Your task to perform on an android device: turn off priority inbox in the gmail app Image 0: 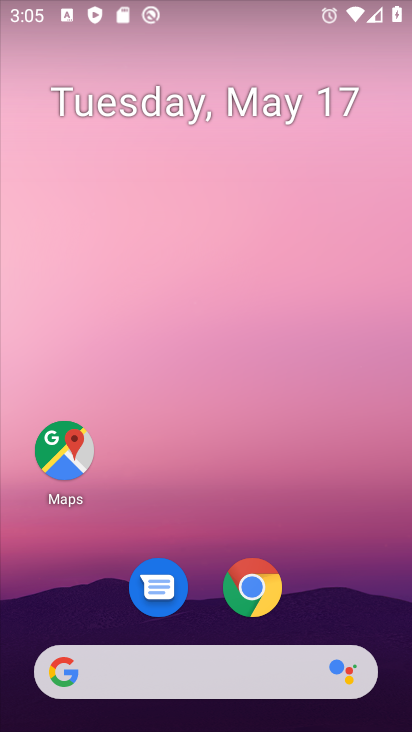
Step 0: drag from (209, 615) to (211, 165)
Your task to perform on an android device: turn off priority inbox in the gmail app Image 1: 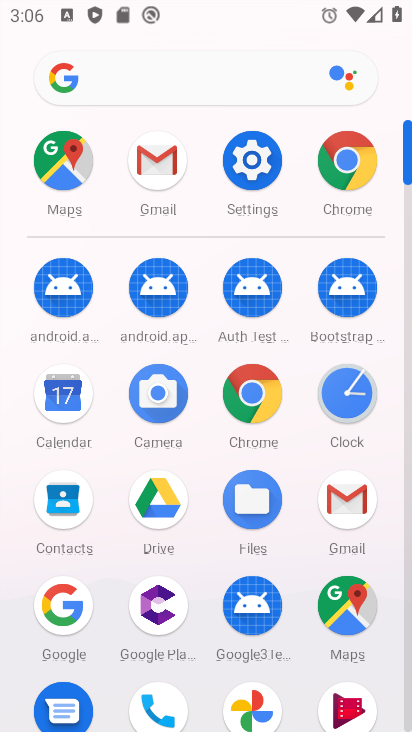
Step 1: click (342, 499)
Your task to perform on an android device: turn off priority inbox in the gmail app Image 2: 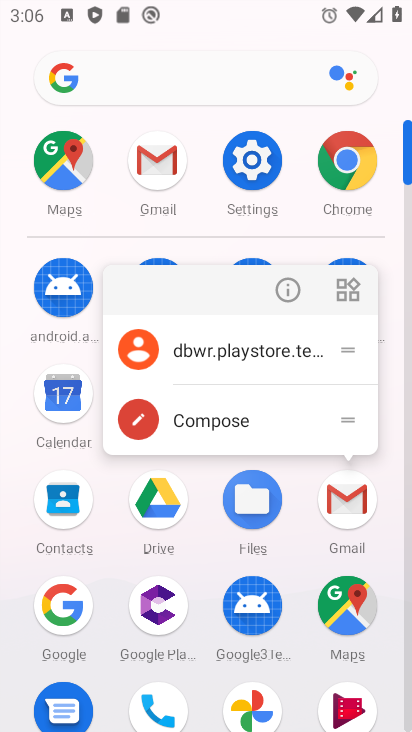
Step 2: click (233, 345)
Your task to perform on an android device: turn off priority inbox in the gmail app Image 3: 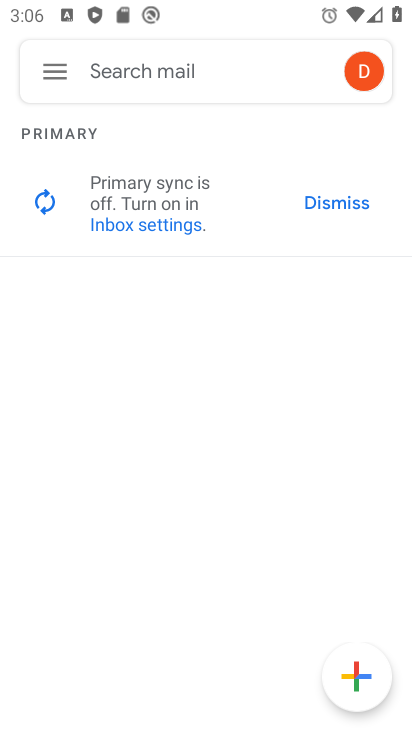
Step 3: click (35, 74)
Your task to perform on an android device: turn off priority inbox in the gmail app Image 4: 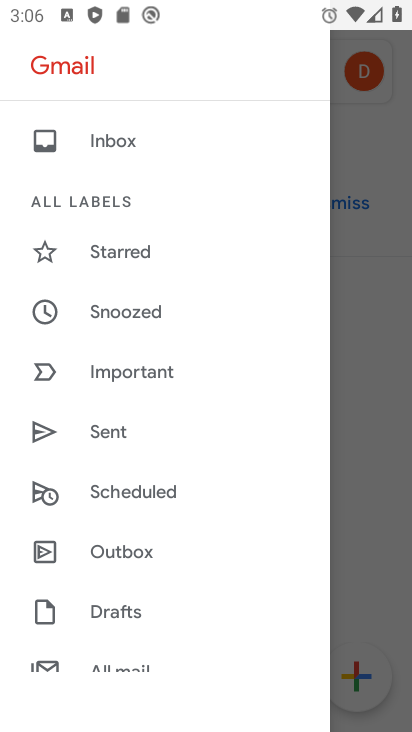
Step 4: drag from (199, 634) to (212, 458)
Your task to perform on an android device: turn off priority inbox in the gmail app Image 5: 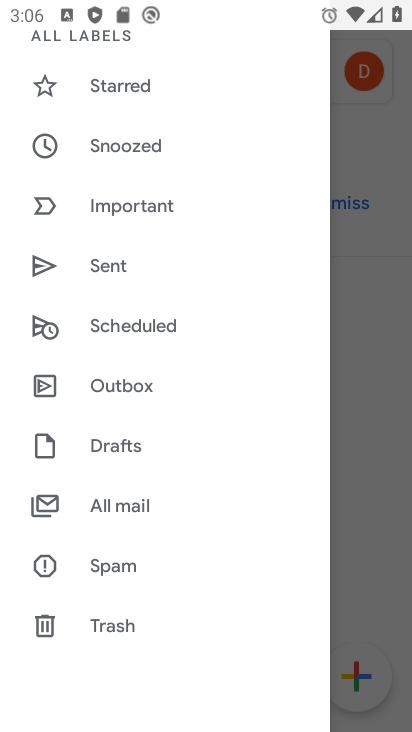
Step 5: drag from (150, 634) to (296, 25)
Your task to perform on an android device: turn off priority inbox in the gmail app Image 6: 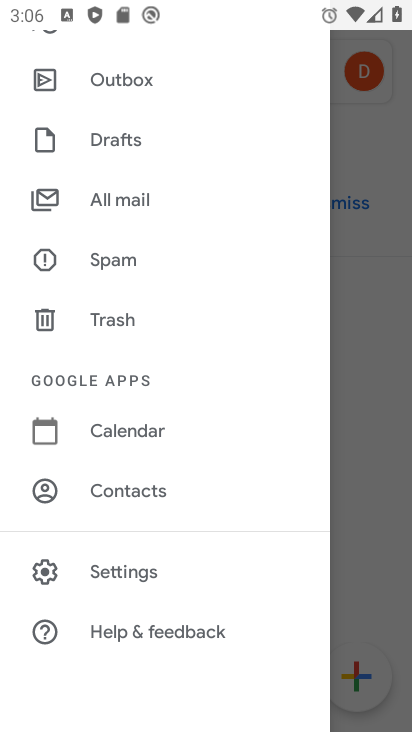
Step 6: click (144, 581)
Your task to perform on an android device: turn off priority inbox in the gmail app Image 7: 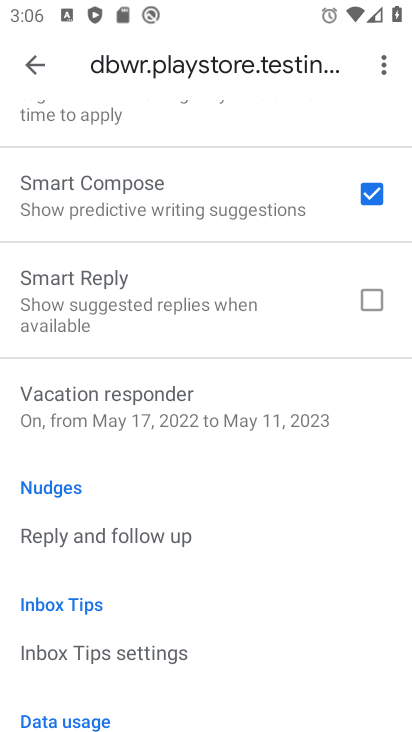
Step 7: drag from (220, 171) to (249, 708)
Your task to perform on an android device: turn off priority inbox in the gmail app Image 8: 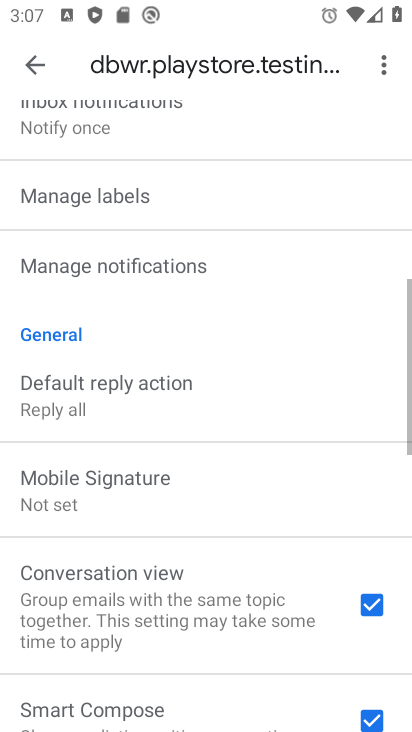
Step 8: drag from (228, 256) to (199, 720)
Your task to perform on an android device: turn off priority inbox in the gmail app Image 9: 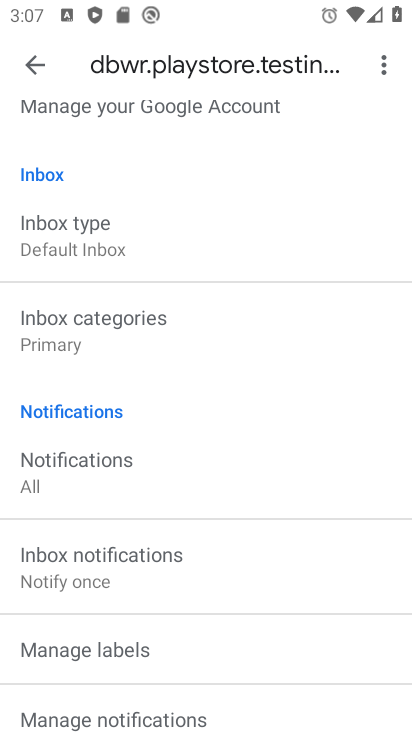
Step 9: click (129, 237)
Your task to perform on an android device: turn off priority inbox in the gmail app Image 10: 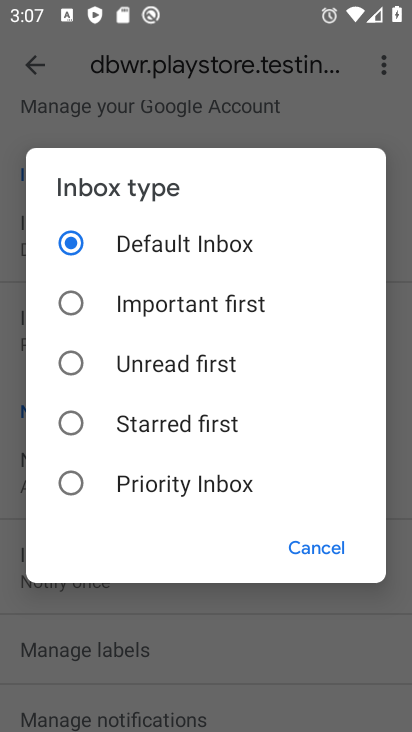
Step 10: click (116, 367)
Your task to perform on an android device: turn off priority inbox in the gmail app Image 11: 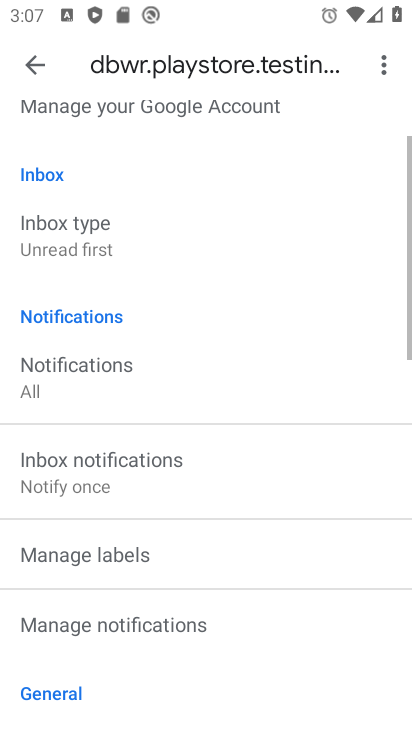
Step 11: task complete